Your task to perform on an android device: Toggle the flashlight Image 0: 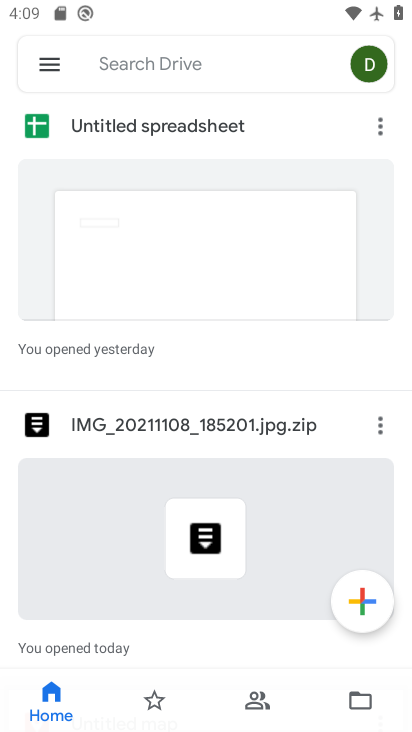
Step 0: press home button
Your task to perform on an android device: Toggle the flashlight Image 1: 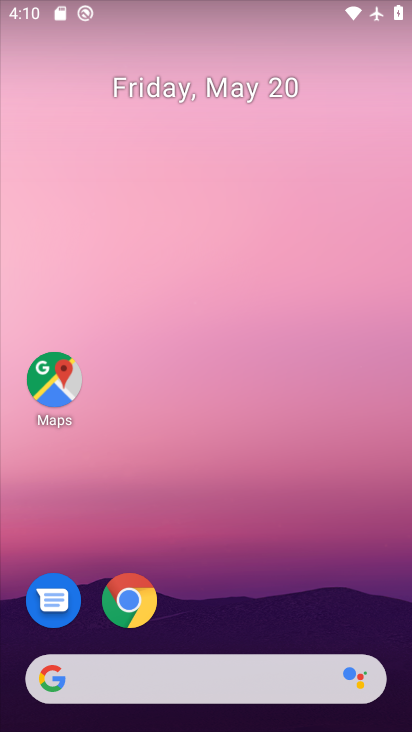
Step 1: task complete